Your task to perform on an android device: open app "Yahoo Mail" (install if not already installed) Image 0: 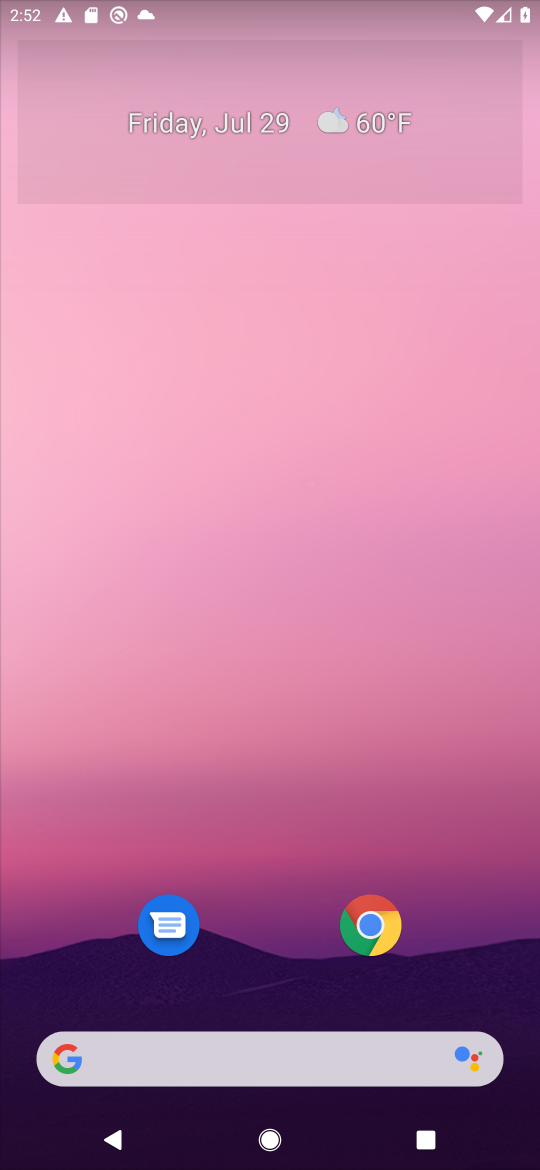
Step 0: drag from (317, 764) to (351, 0)
Your task to perform on an android device: open app "Yahoo Mail" (install if not already installed) Image 1: 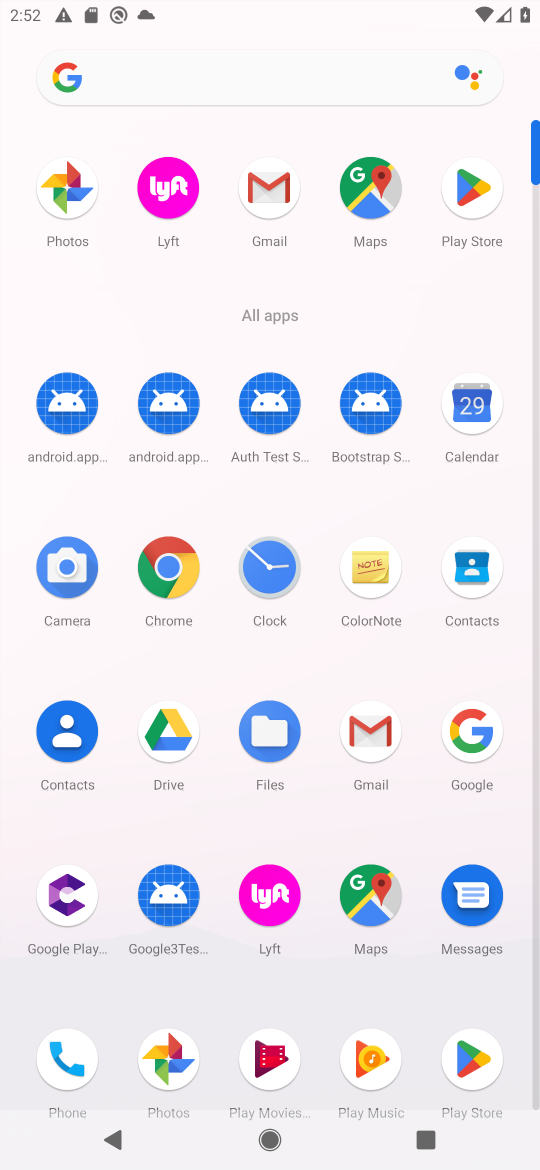
Step 1: click (475, 200)
Your task to perform on an android device: open app "Yahoo Mail" (install if not already installed) Image 2: 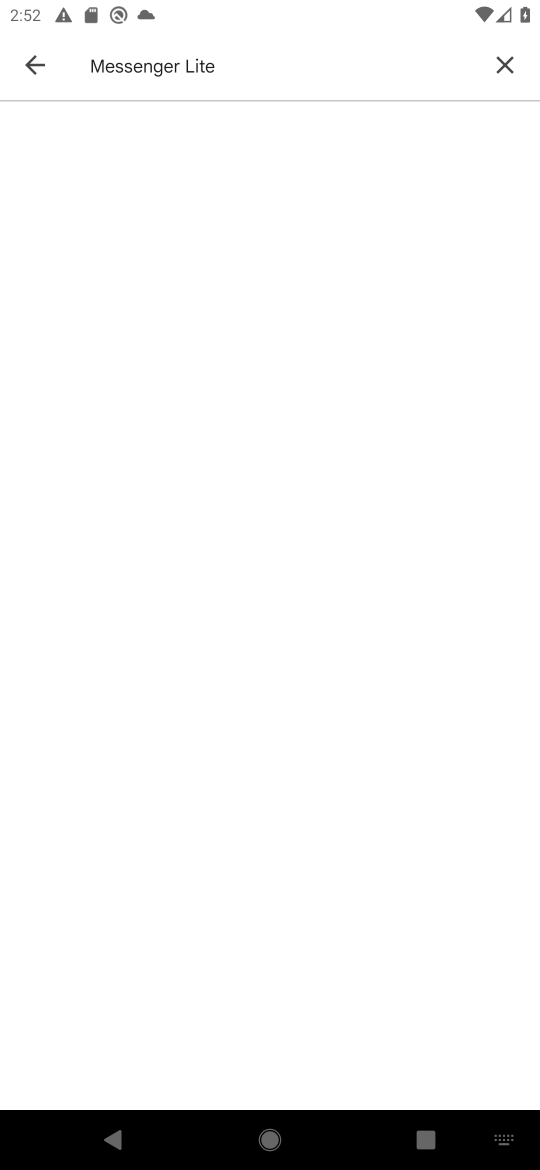
Step 2: click (501, 70)
Your task to perform on an android device: open app "Yahoo Mail" (install if not already installed) Image 3: 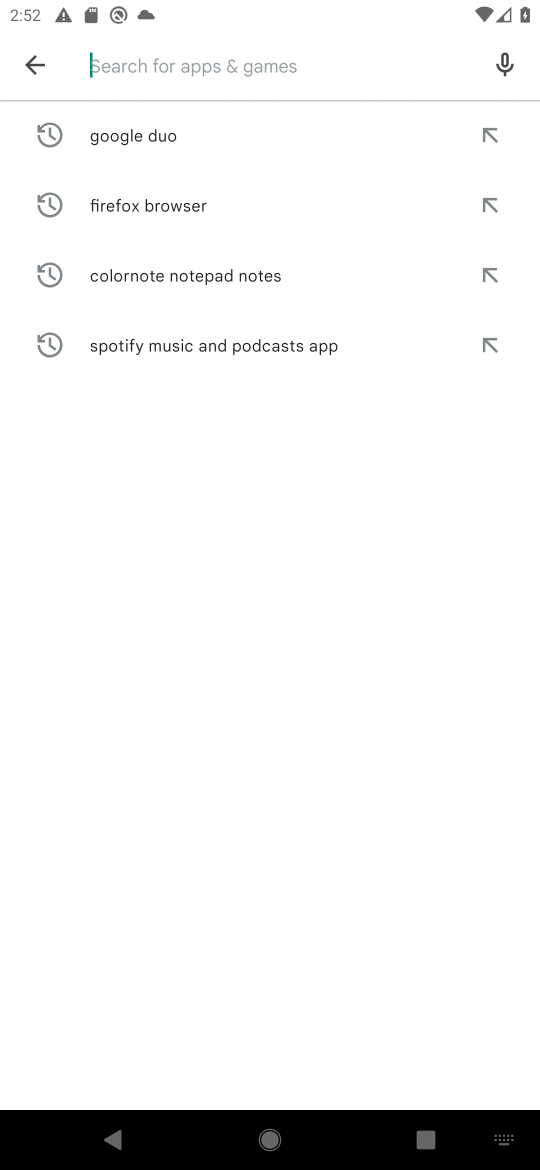
Step 3: click (228, 69)
Your task to perform on an android device: open app "Yahoo Mail" (install if not already installed) Image 4: 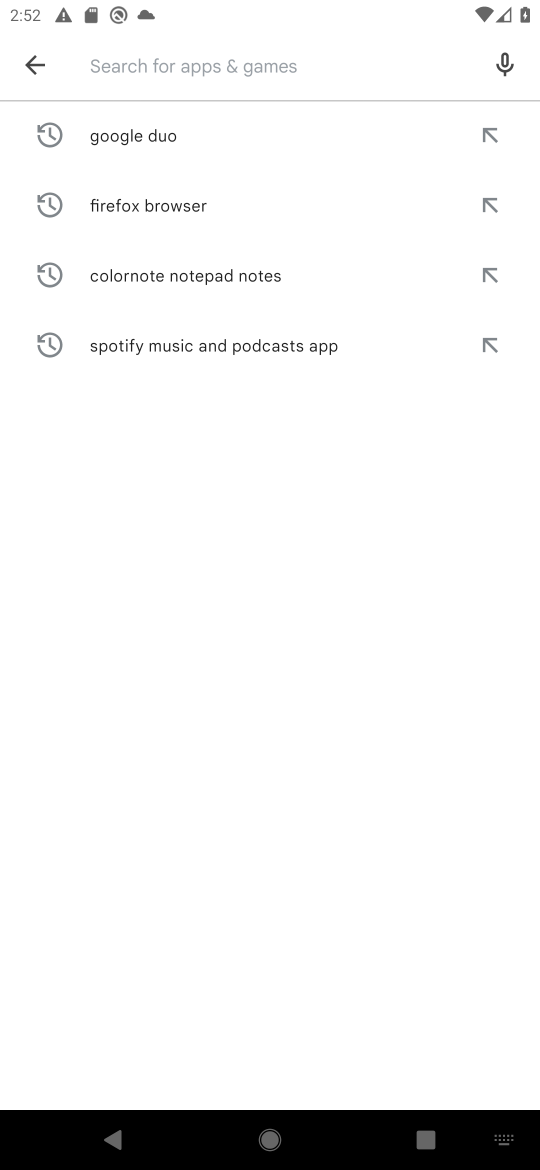
Step 4: type "Yahoo Mail"
Your task to perform on an android device: open app "Yahoo Mail" (install if not already installed) Image 5: 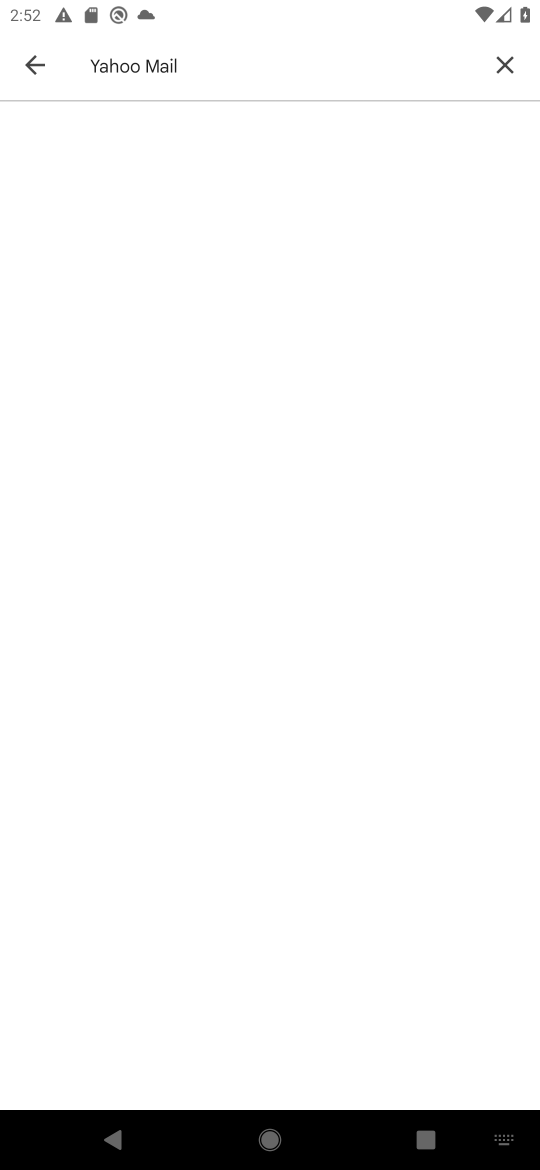
Step 5: click (40, 70)
Your task to perform on an android device: open app "Yahoo Mail" (install if not already installed) Image 6: 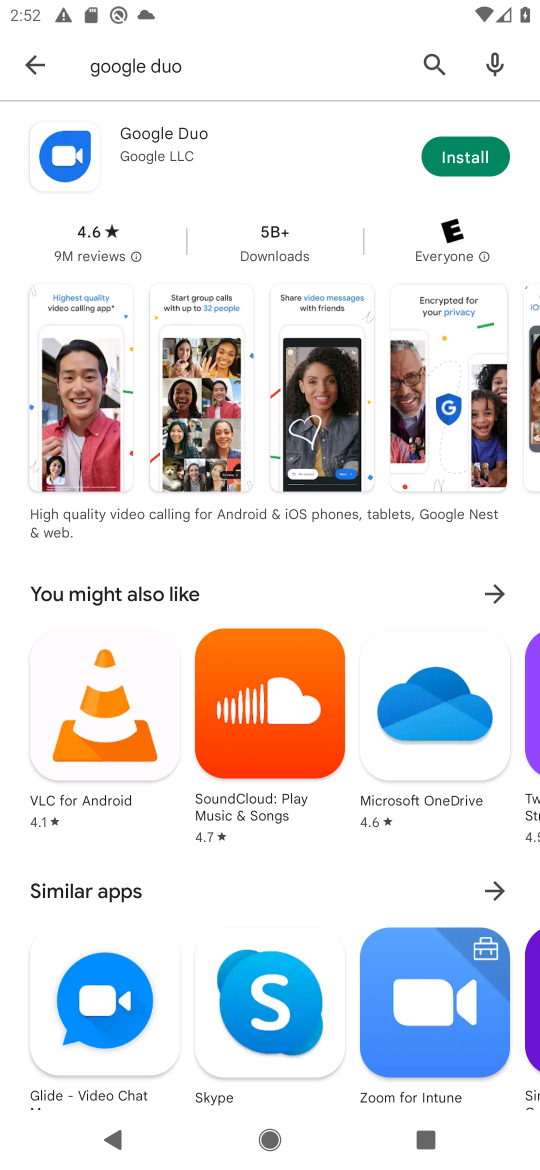
Step 6: click (440, 68)
Your task to perform on an android device: open app "Yahoo Mail" (install if not already installed) Image 7: 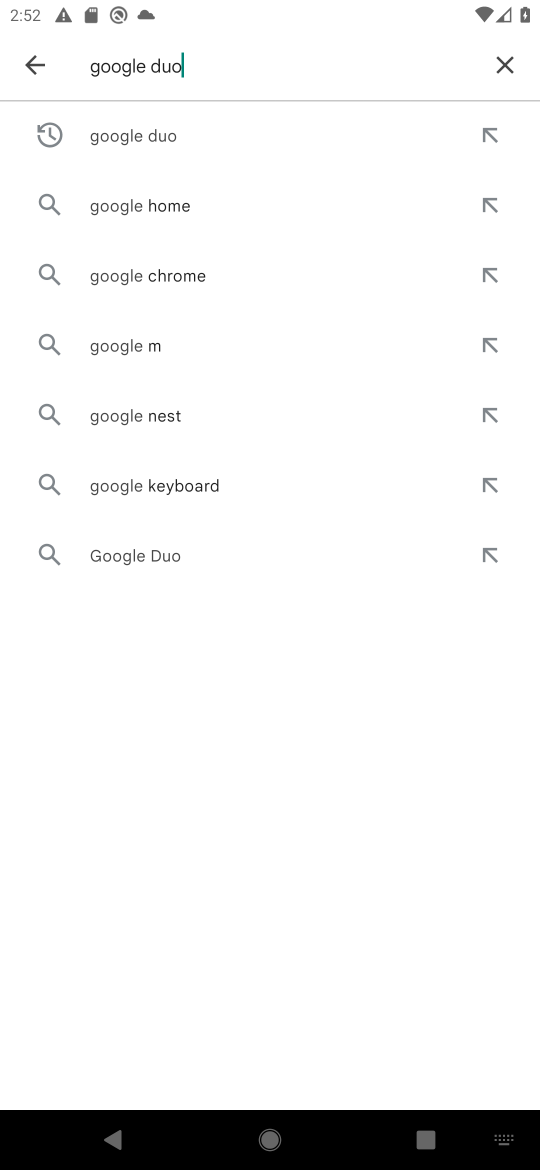
Step 7: click (519, 74)
Your task to perform on an android device: open app "Yahoo Mail" (install if not already installed) Image 8: 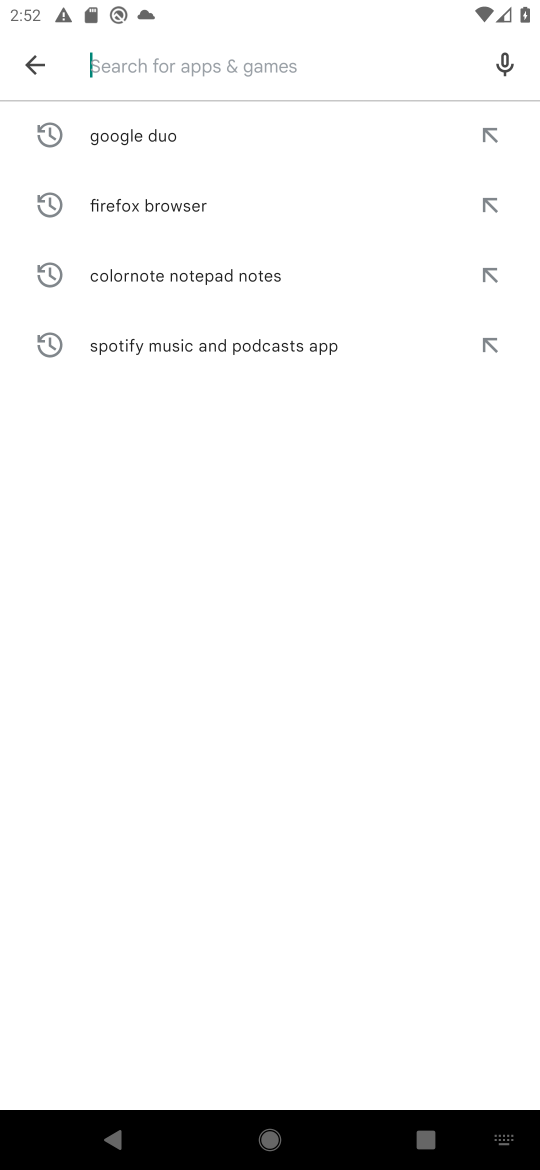
Step 8: type "Yahoo Mail"
Your task to perform on an android device: open app "Yahoo Mail" (install if not already installed) Image 9: 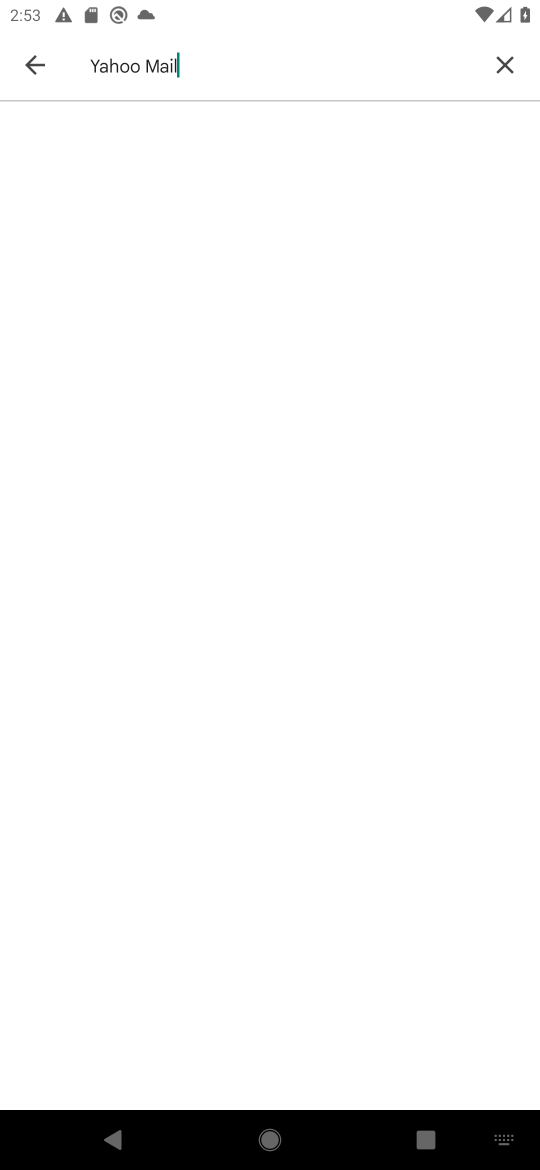
Step 9: task complete